Your task to perform on an android device: toggle priority inbox in the gmail app Image 0: 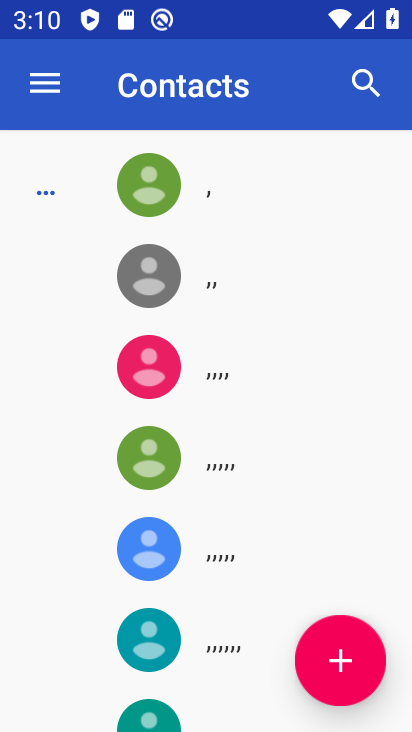
Step 0: press home button
Your task to perform on an android device: toggle priority inbox in the gmail app Image 1: 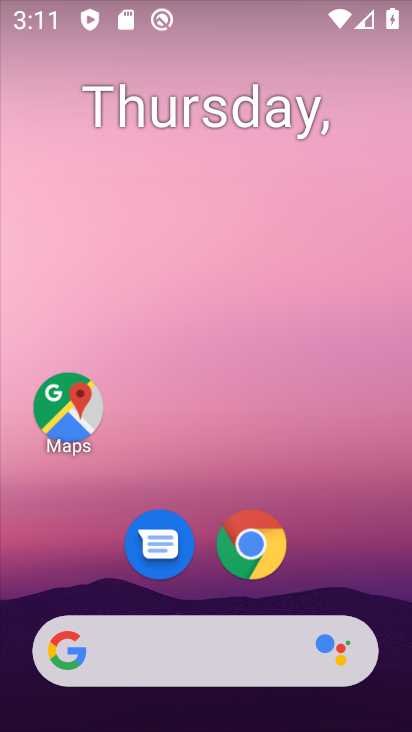
Step 1: drag from (322, 588) to (303, 28)
Your task to perform on an android device: toggle priority inbox in the gmail app Image 2: 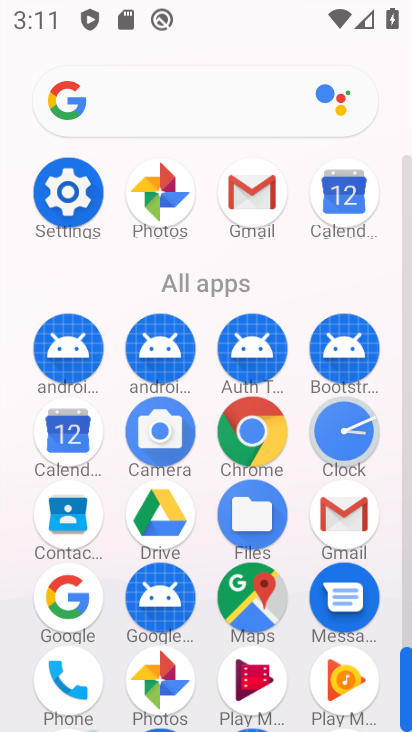
Step 2: click (359, 517)
Your task to perform on an android device: toggle priority inbox in the gmail app Image 3: 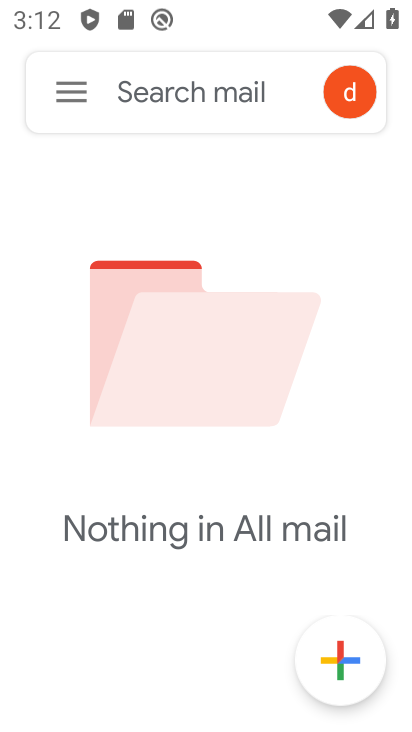
Step 3: click (72, 86)
Your task to perform on an android device: toggle priority inbox in the gmail app Image 4: 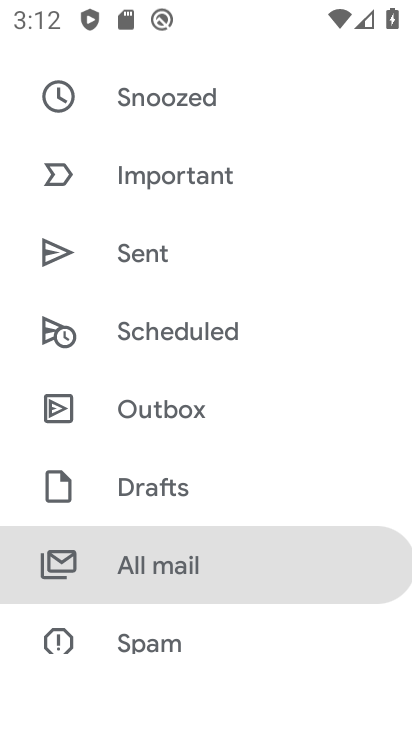
Step 4: drag from (168, 544) to (217, 13)
Your task to perform on an android device: toggle priority inbox in the gmail app Image 5: 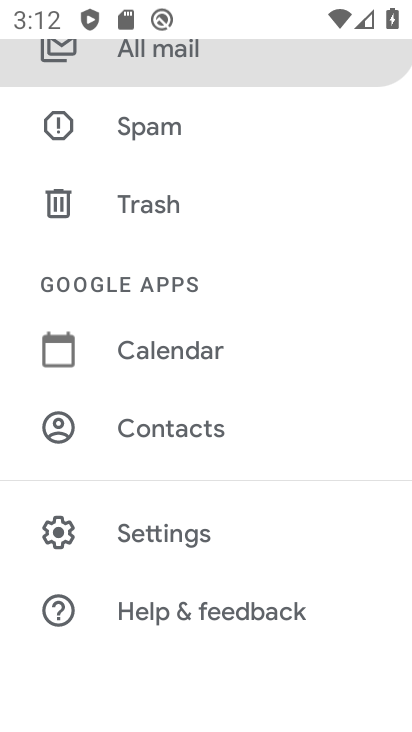
Step 5: click (177, 521)
Your task to perform on an android device: toggle priority inbox in the gmail app Image 6: 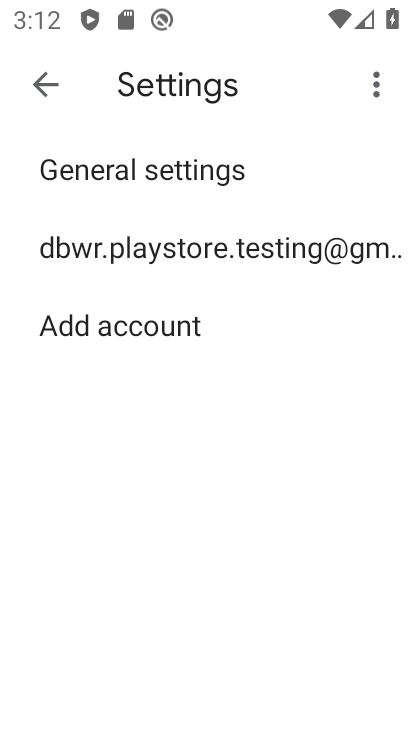
Step 6: click (222, 247)
Your task to perform on an android device: toggle priority inbox in the gmail app Image 7: 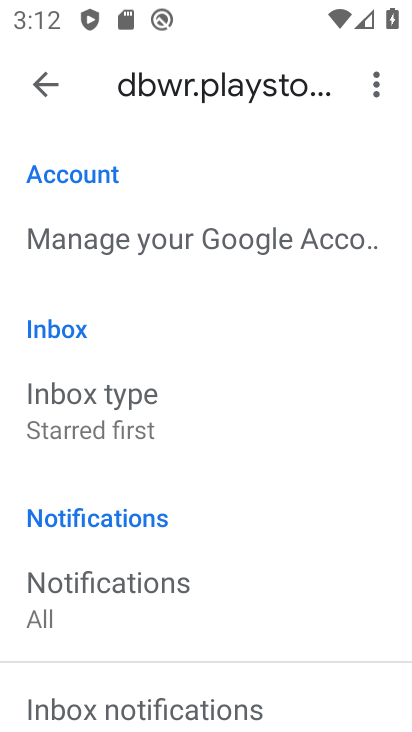
Step 7: click (97, 408)
Your task to perform on an android device: toggle priority inbox in the gmail app Image 8: 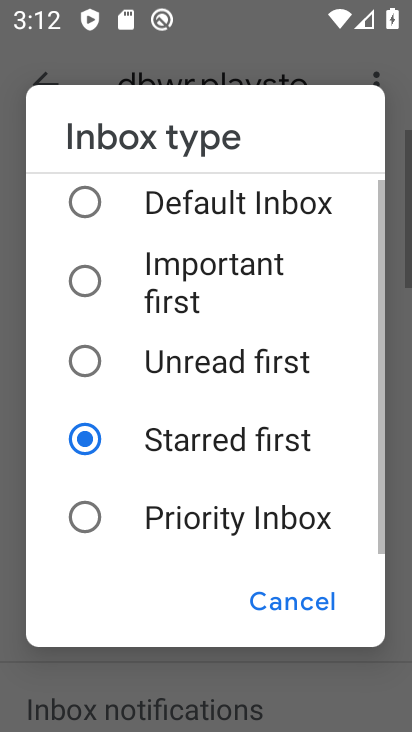
Step 8: click (170, 515)
Your task to perform on an android device: toggle priority inbox in the gmail app Image 9: 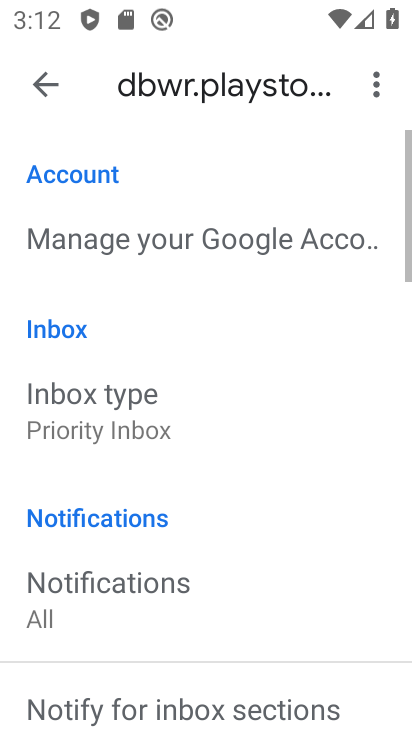
Step 9: task complete